Your task to perform on an android device: Go to network settings Image 0: 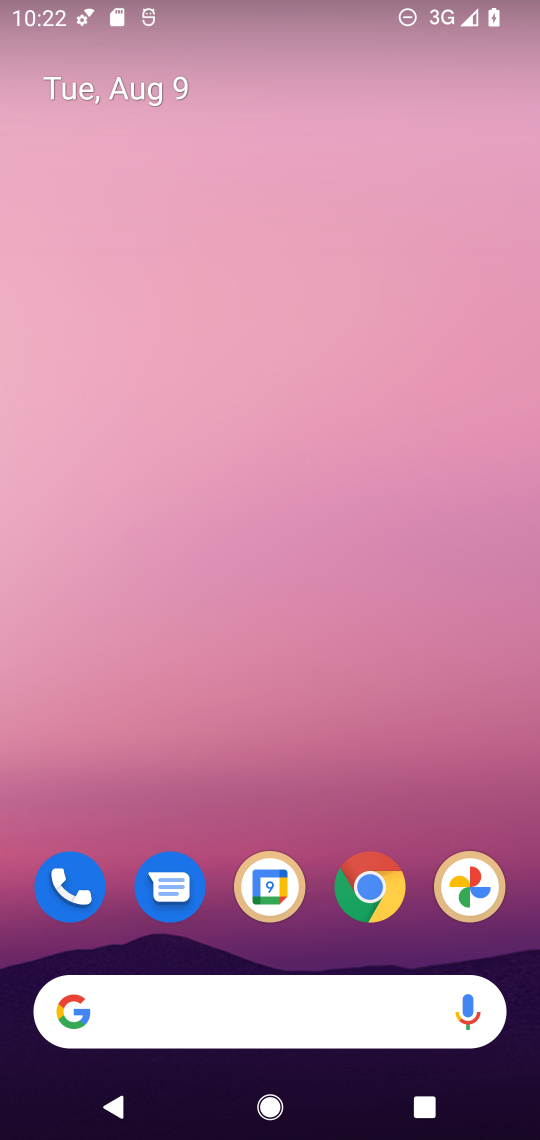
Step 0: drag from (292, 786) to (350, 225)
Your task to perform on an android device: Go to network settings Image 1: 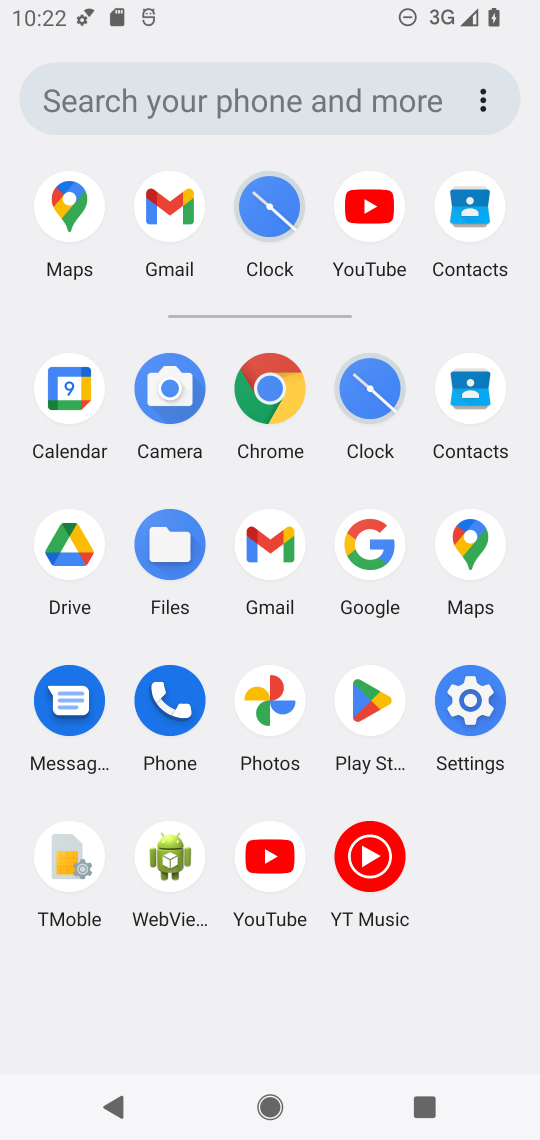
Step 1: click (458, 669)
Your task to perform on an android device: Go to network settings Image 2: 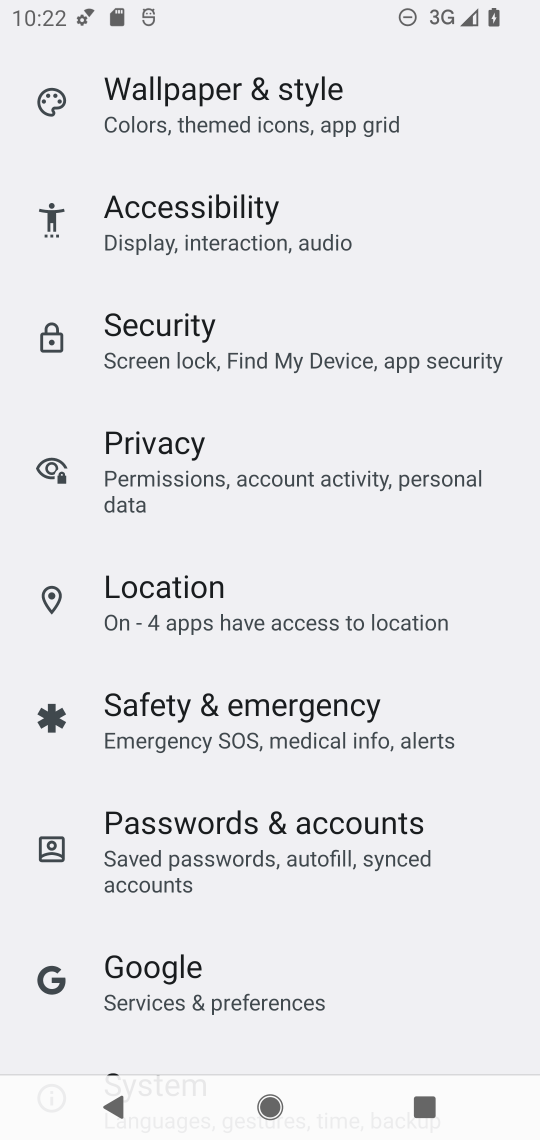
Step 2: drag from (273, 343) to (345, 781)
Your task to perform on an android device: Go to network settings Image 3: 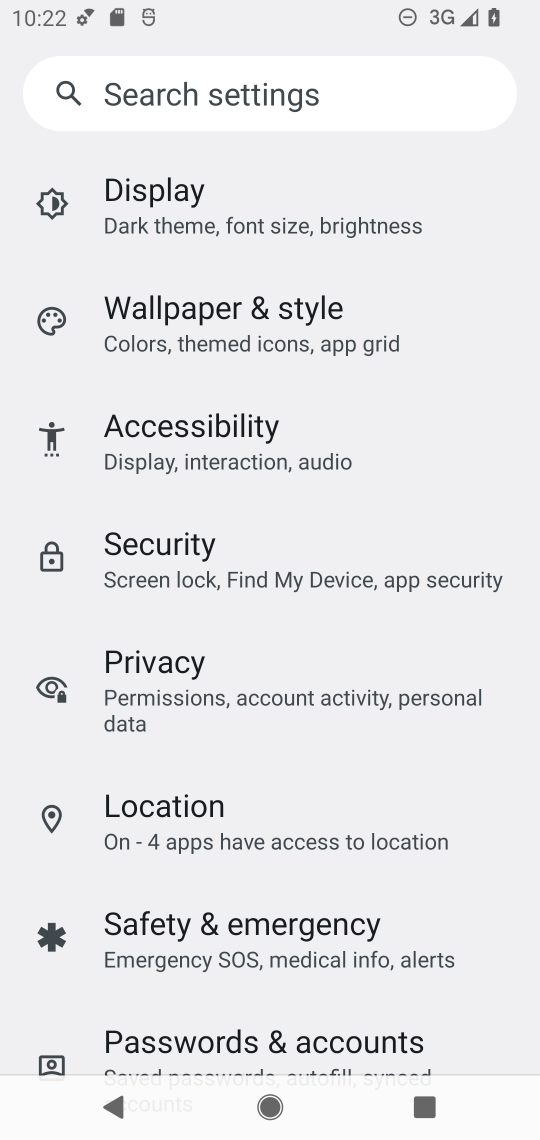
Step 3: drag from (206, 302) to (285, 720)
Your task to perform on an android device: Go to network settings Image 4: 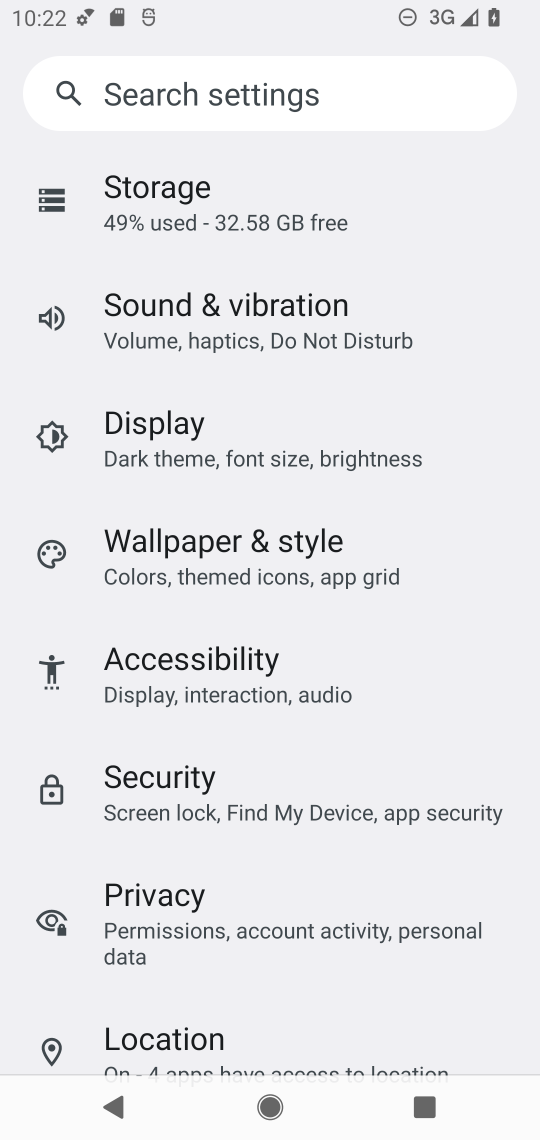
Step 4: drag from (190, 311) to (276, 806)
Your task to perform on an android device: Go to network settings Image 5: 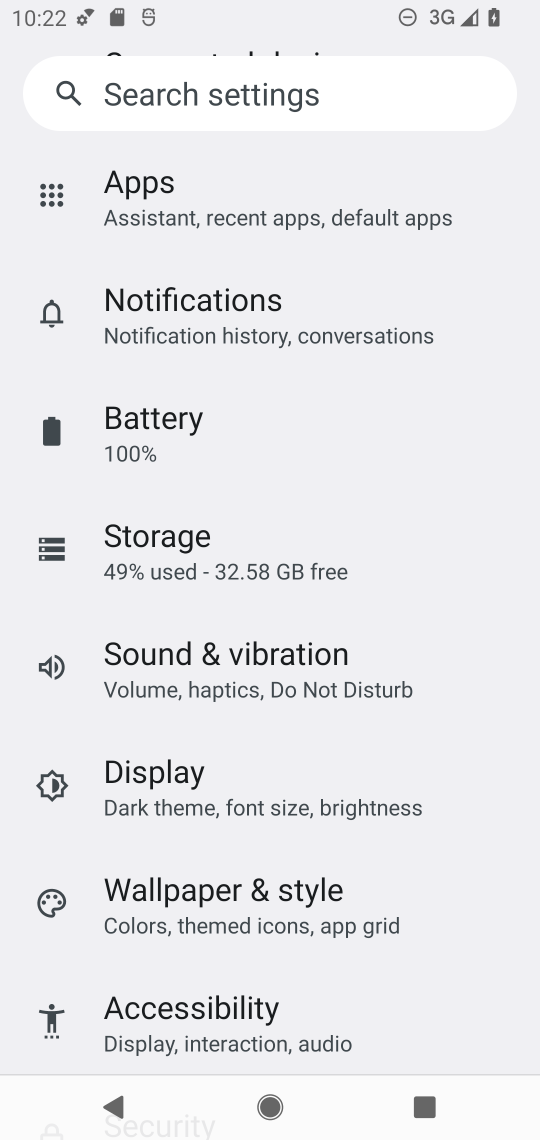
Step 5: drag from (183, 228) to (287, 735)
Your task to perform on an android device: Go to network settings Image 6: 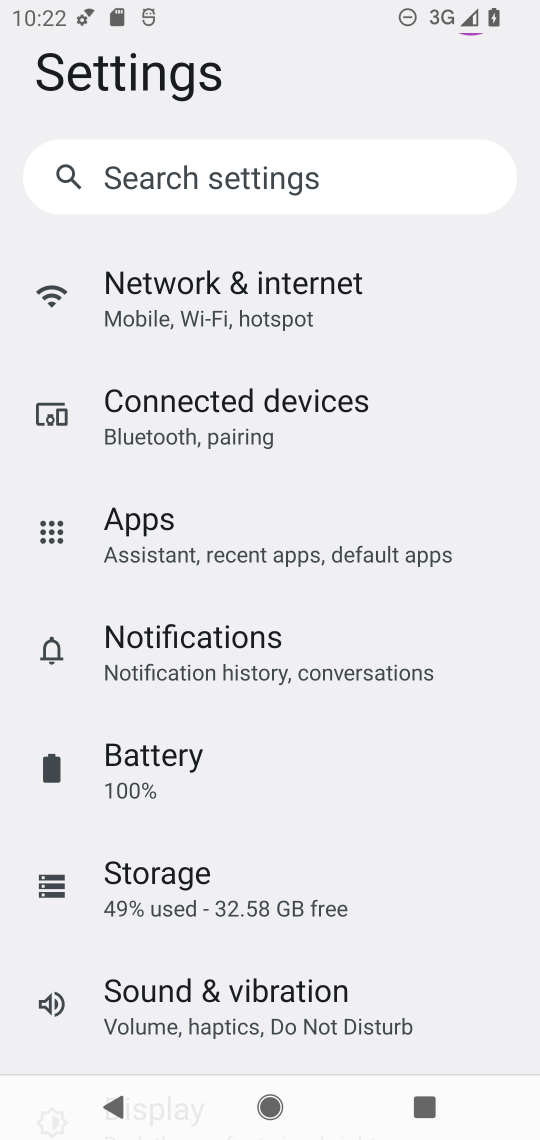
Step 6: click (212, 303)
Your task to perform on an android device: Go to network settings Image 7: 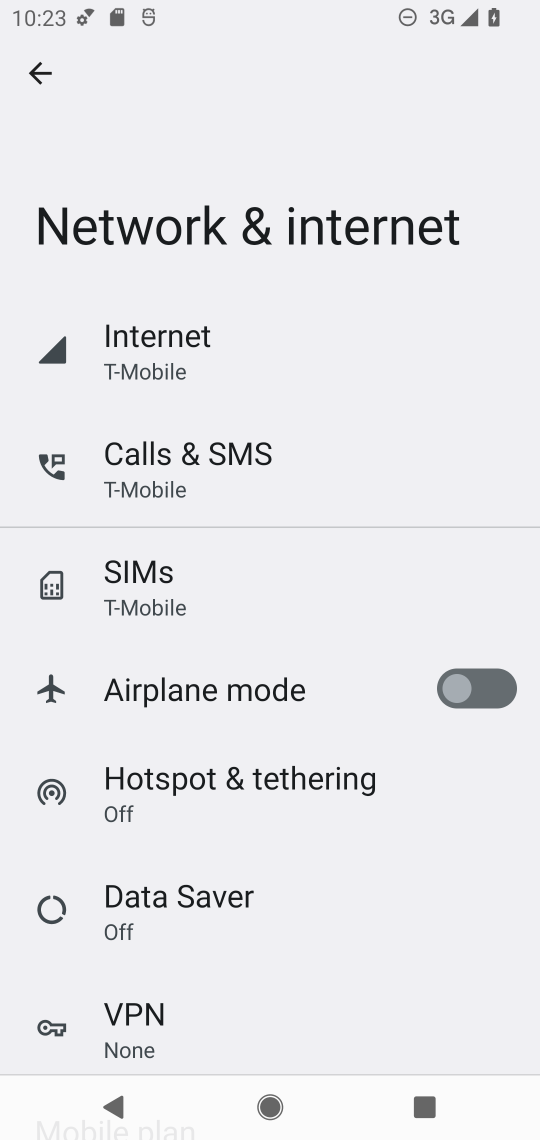
Step 7: task complete